Your task to perform on an android device: Open internet settings Image 0: 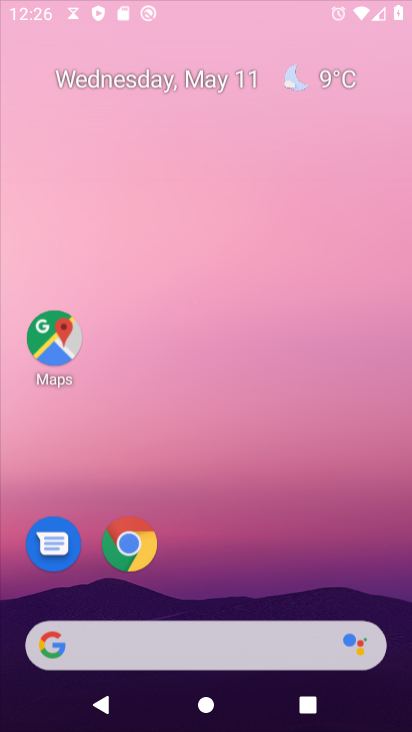
Step 0: click (228, 265)
Your task to perform on an android device: Open internet settings Image 1: 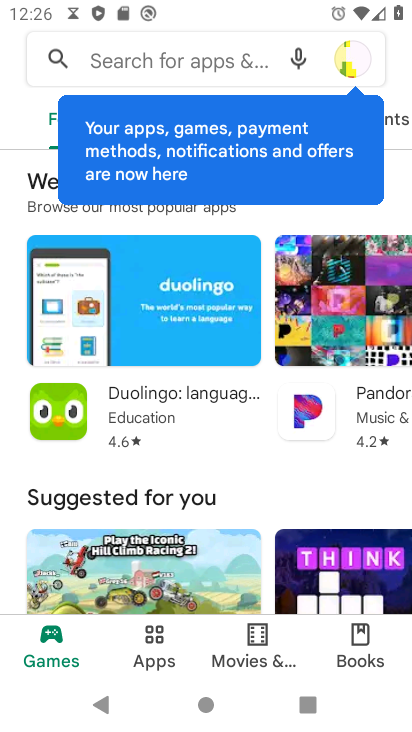
Step 1: drag from (272, 589) to (282, 314)
Your task to perform on an android device: Open internet settings Image 2: 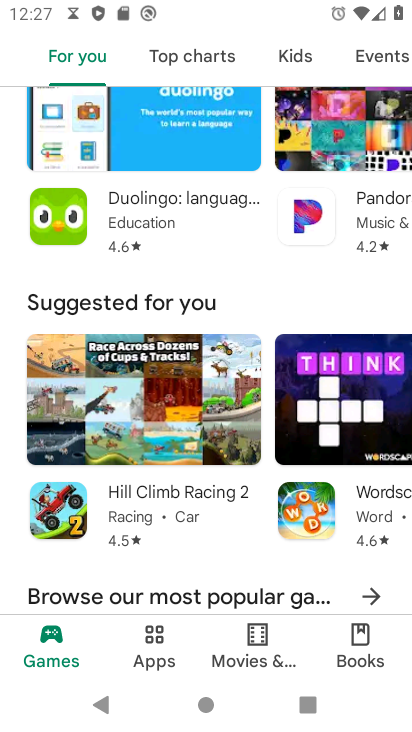
Step 2: press home button
Your task to perform on an android device: Open internet settings Image 3: 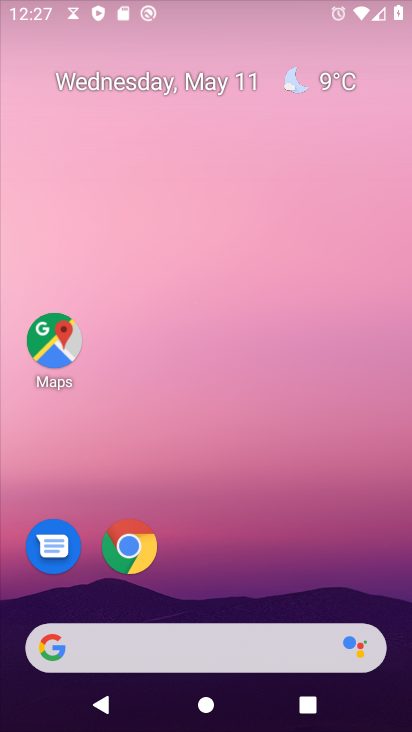
Step 3: drag from (267, 559) to (279, 129)
Your task to perform on an android device: Open internet settings Image 4: 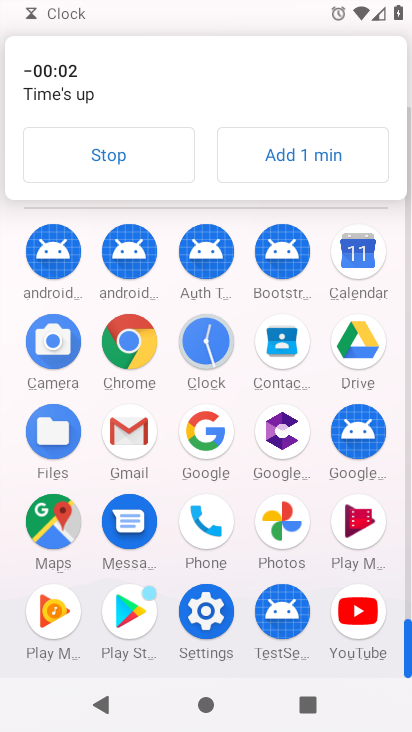
Step 4: click (129, 154)
Your task to perform on an android device: Open internet settings Image 5: 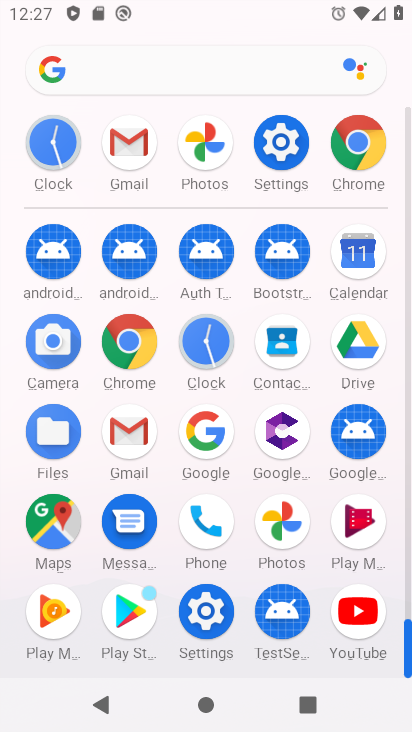
Step 5: click (281, 136)
Your task to perform on an android device: Open internet settings Image 6: 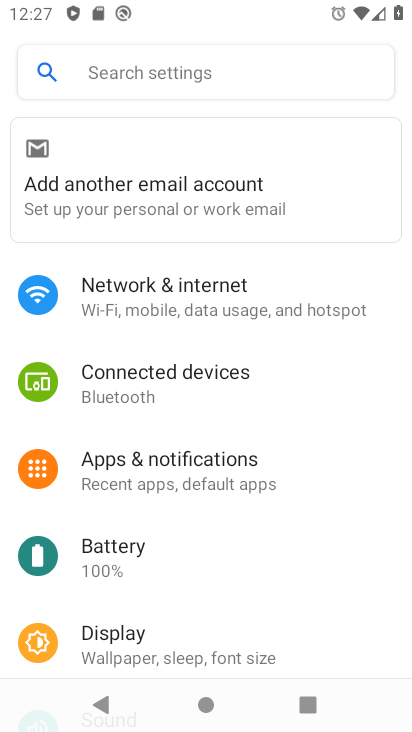
Step 6: drag from (222, 677) to (282, 237)
Your task to perform on an android device: Open internet settings Image 7: 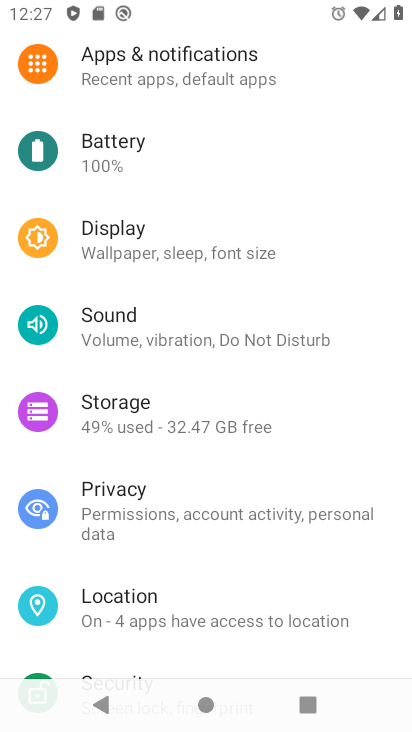
Step 7: drag from (195, 599) to (234, 325)
Your task to perform on an android device: Open internet settings Image 8: 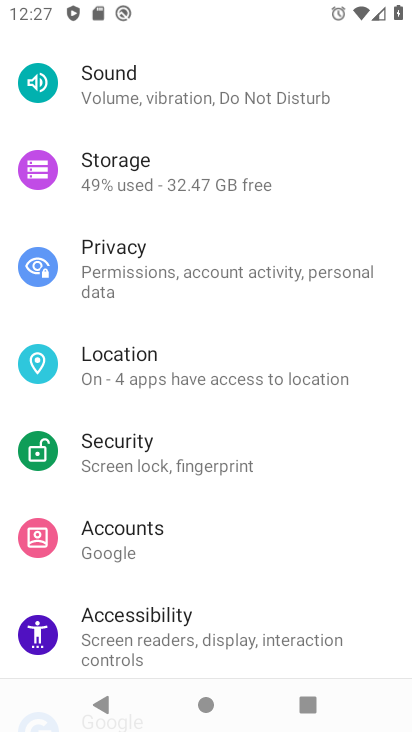
Step 8: drag from (202, 209) to (248, 691)
Your task to perform on an android device: Open internet settings Image 9: 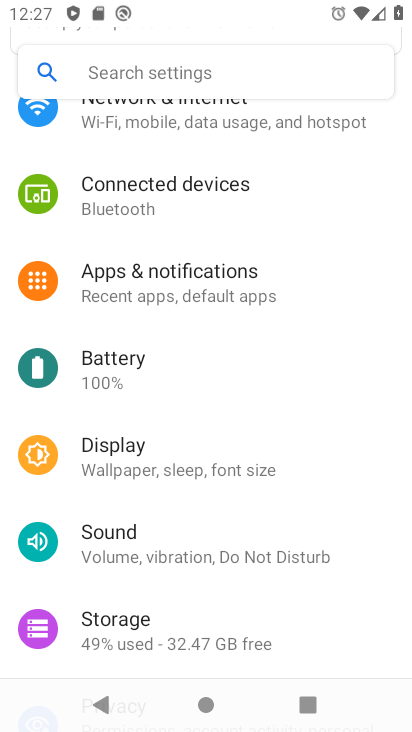
Step 9: drag from (259, 250) to (397, 708)
Your task to perform on an android device: Open internet settings Image 10: 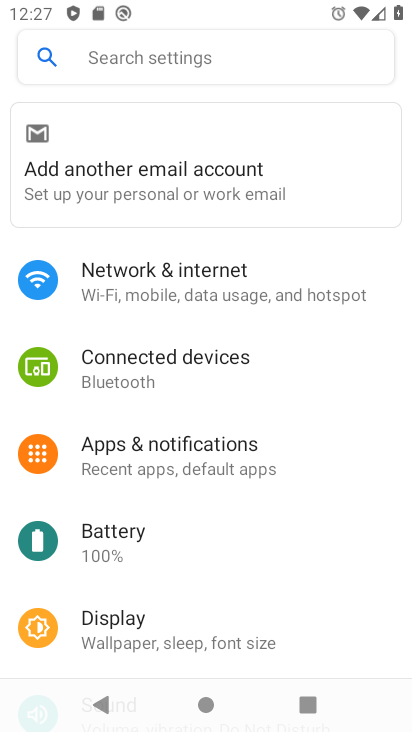
Step 10: click (204, 274)
Your task to perform on an android device: Open internet settings Image 11: 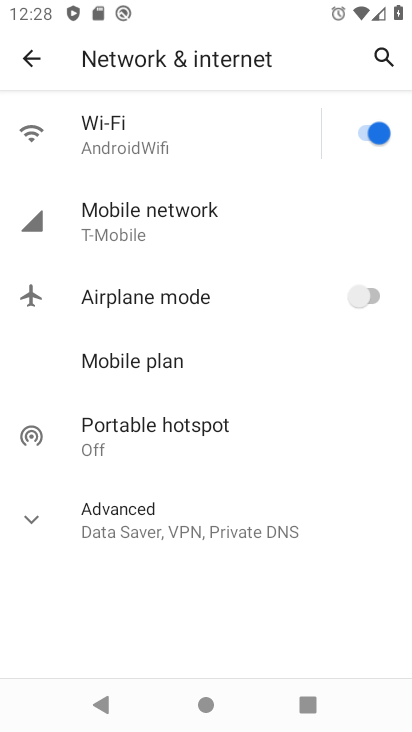
Step 11: click (201, 77)
Your task to perform on an android device: Open internet settings Image 12: 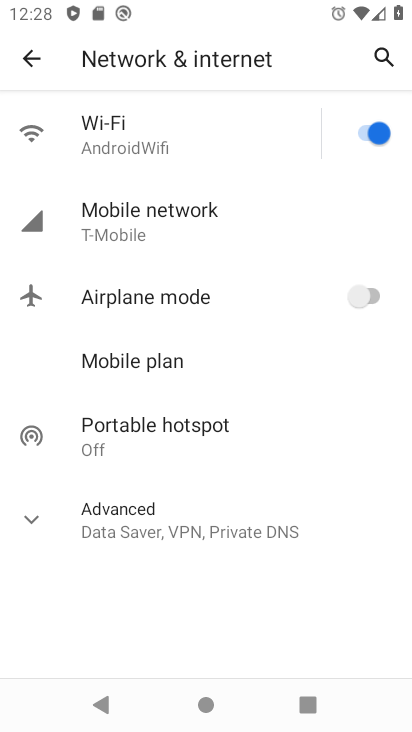
Step 12: click (201, 77)
Your task to perform on an android device: Open internet settings Image 13: 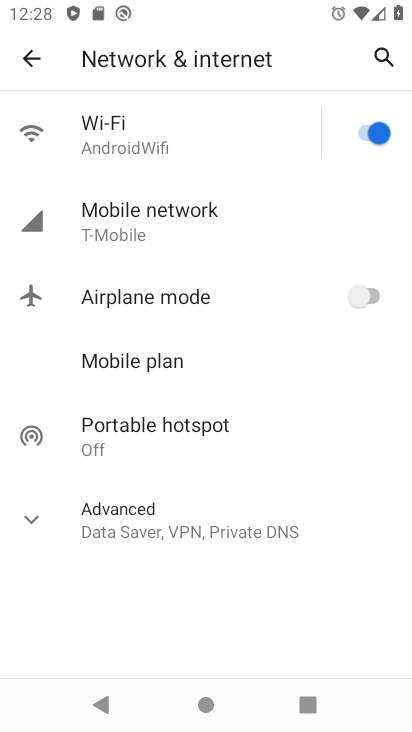
Step 13: click (196, 81)
Your task to perform on an android device: Open internet settings Image 14: 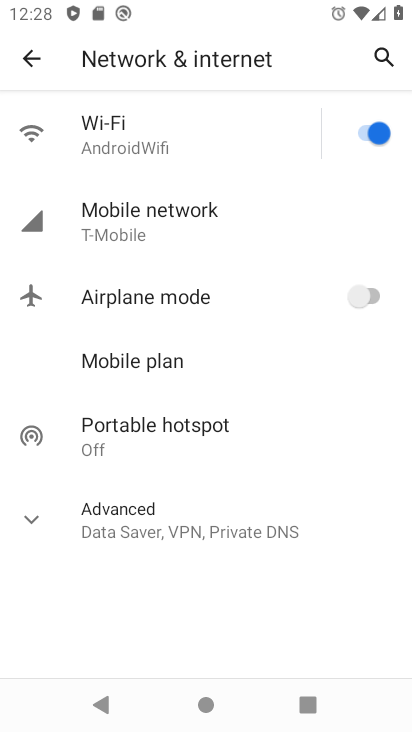
Step 14: task complete